Your task to perform on an android device: change the clock display to analog Image 0: 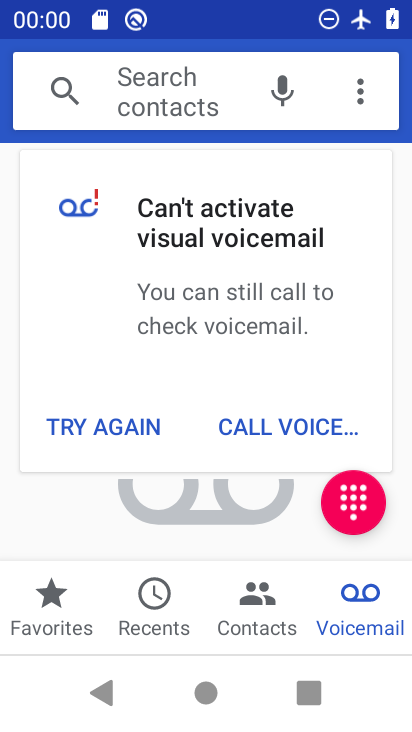
Step 0: press home button
Your task to perform on an android device: change the clock display to analog Image 1: 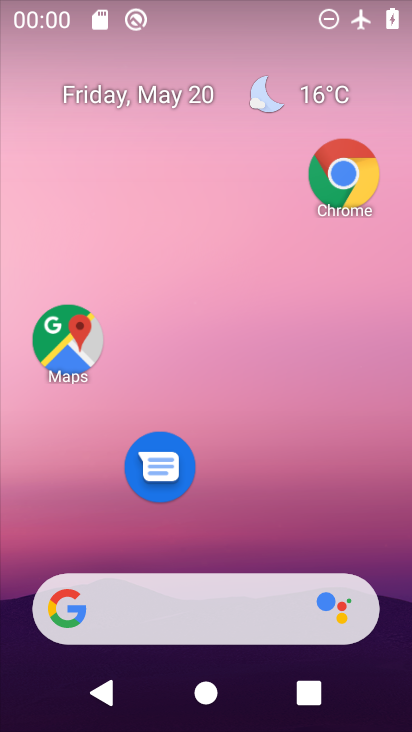
Step 1: drag from (273, 518) to (263, 121)
Your task to perform on an android device: change the clock display to analog Image 2: 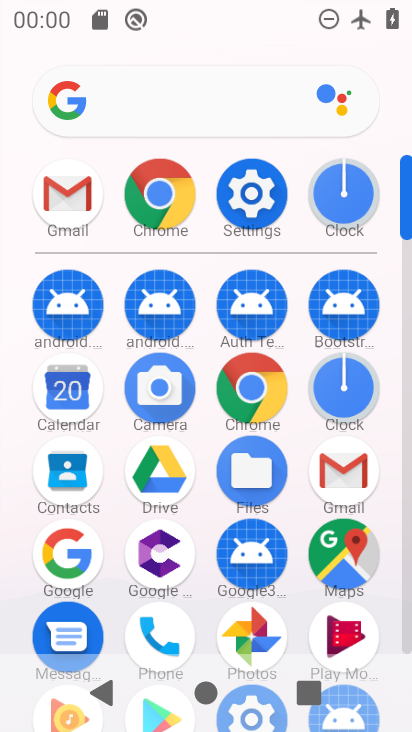
Step 2: click (337, 409)
Your task to perform on an android device: change the clock display to analog Image 3: 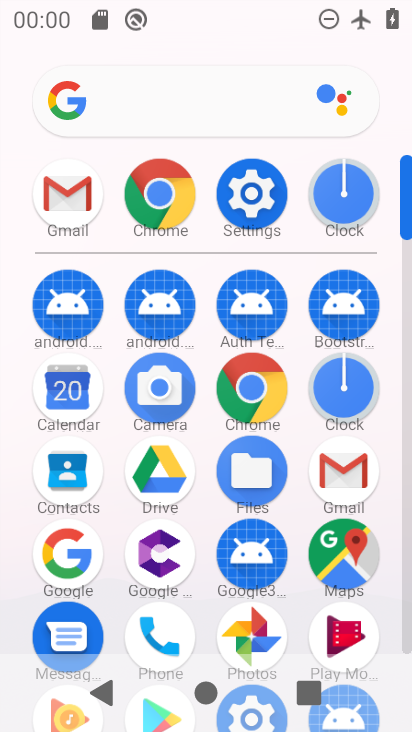
Step 3: click (339, 395)
Your task to perform on an android device: change the clock display to analog Image 4: 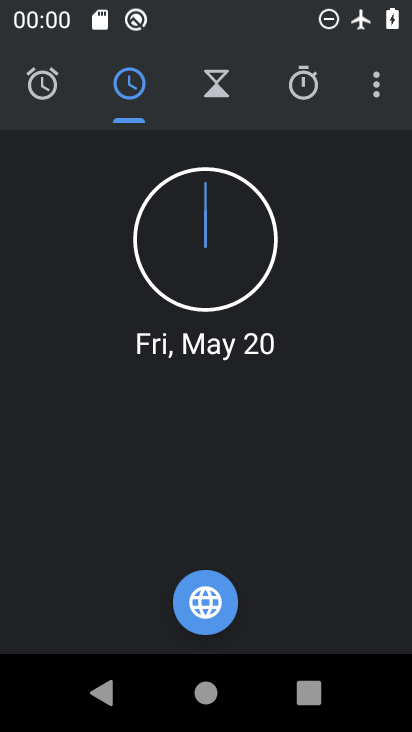
Step 4: click (380, 90)
Your task to perform on an android device: change the clock display to analog Image 5: 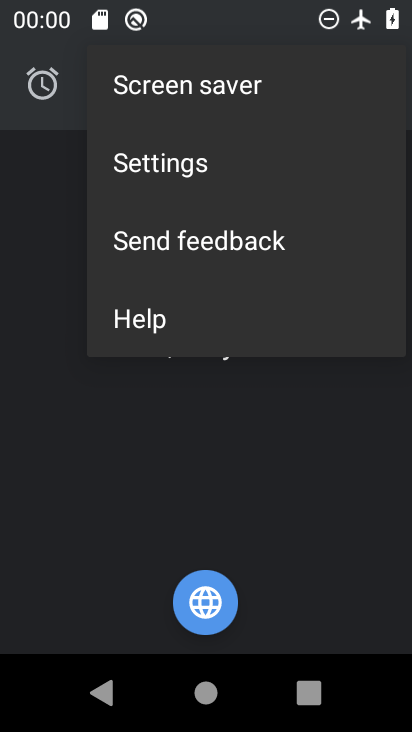
Step 5: click (181, 155)
Your task to perform on an android device: change the clock display to analog Image 6: 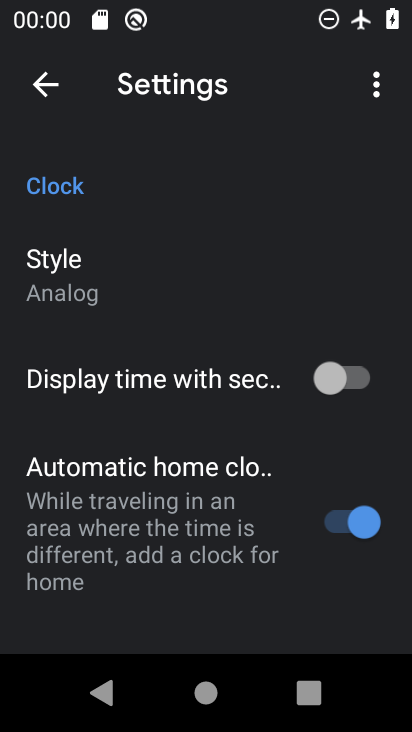
Step 6: click (111, 282)
Your task to perform on an android device: change the clock display to analog Image 7: 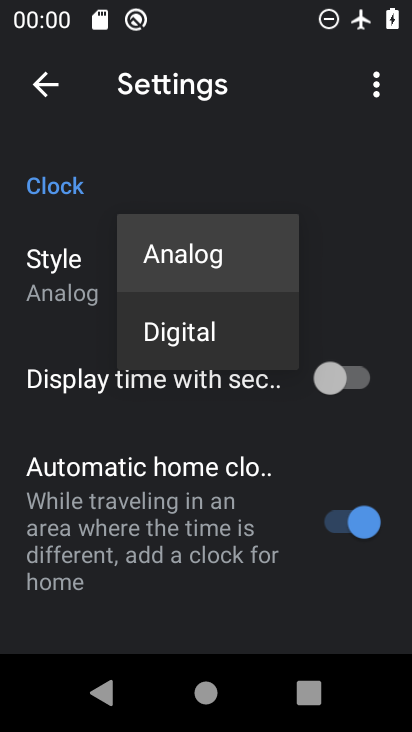
Step 7: task complete